Your task to perform on an android device: set the stopwatch Image 0: 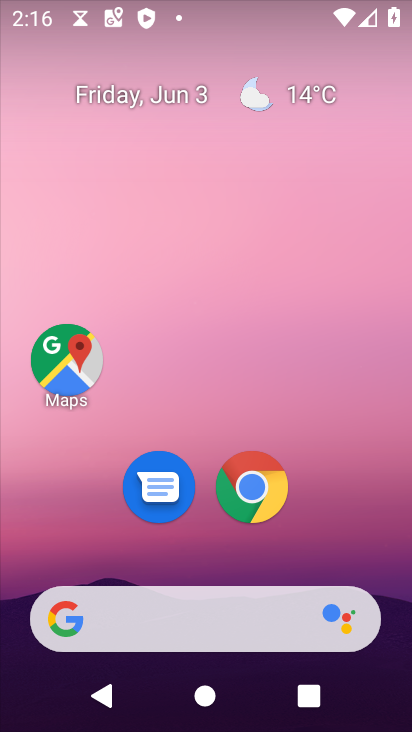
Step 0: drag from (334, 557) to (164, 33)
Your task to perform on an android device: set the stopwatch Image 1: 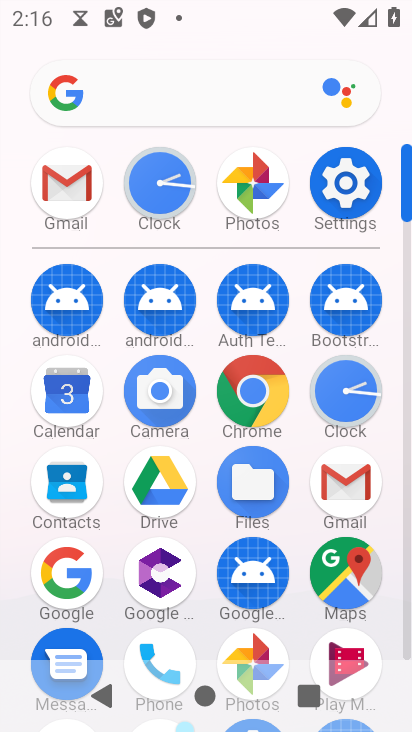
Step 1: click (165, 174)
Your task to perform on an android device: set the stopwatch Image 2: 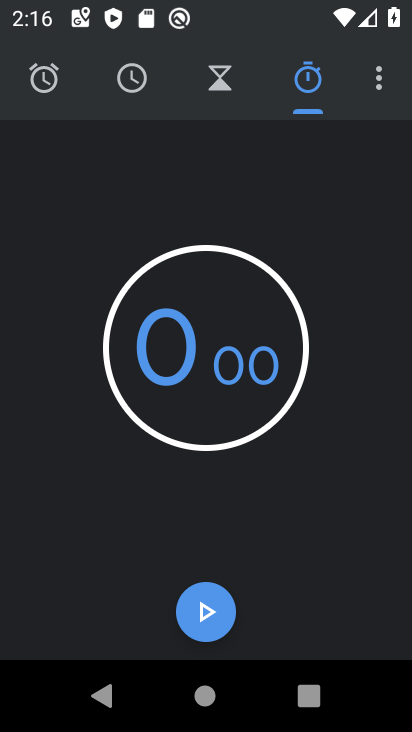
Step 2: click (214, 609)
Your task to perform on an android device: set the stopwatch Image 3: 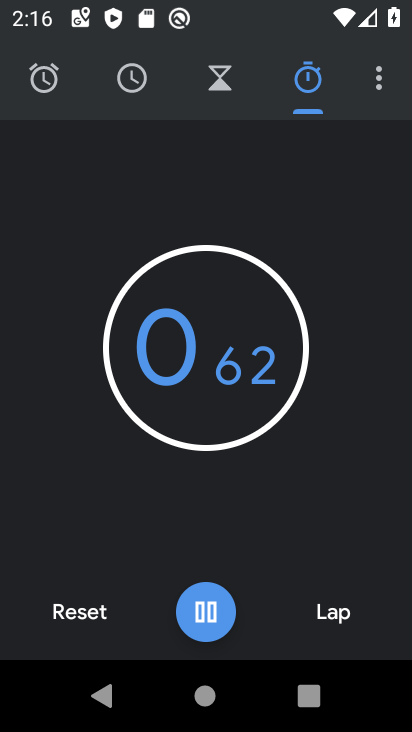
Step 3: task complete